Your task to perform on an android device: turn on javascript in the chrome app Image 0: 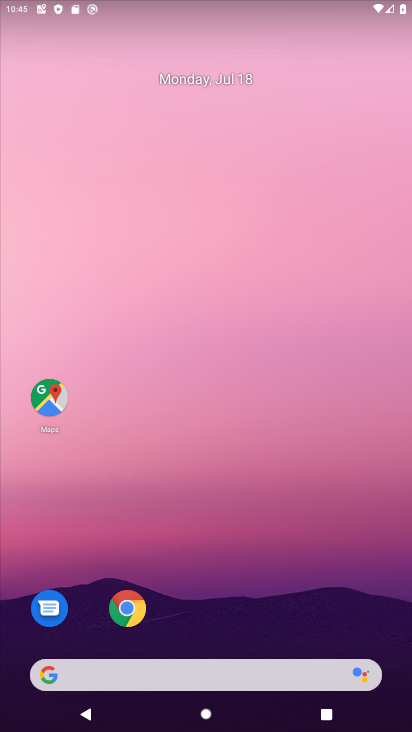
Step 0: drag from (241, 617) to (252, 211)
Your task to perform on an android device: turn on javascript in the chrome app Image 1: 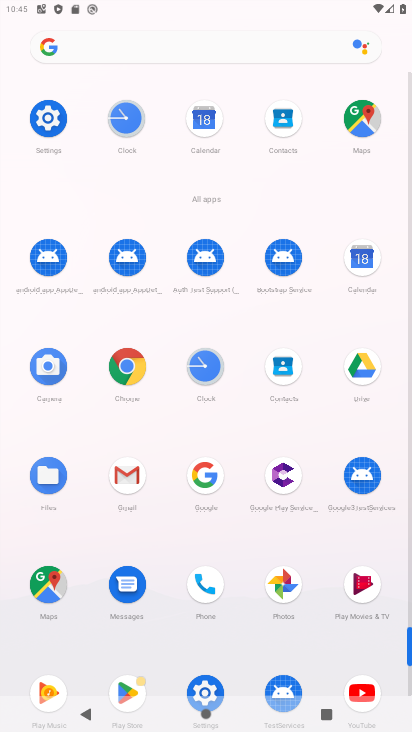
Step 1: click (126, 369)
Your task to perform on an android device: turn on javascript in the chrome app Image 2: 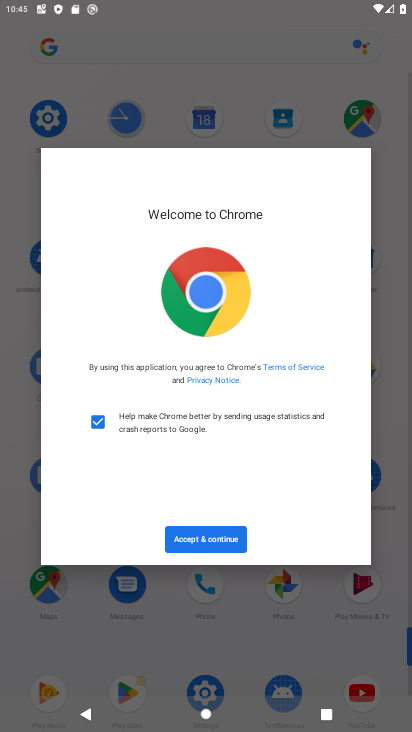
Step 2: click (205, 547)
Your task to perform on an android device: turn on javascript in the chrome app Image 3: 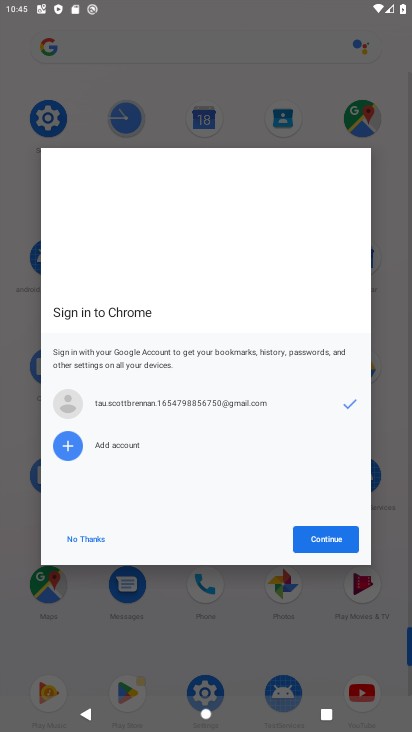
Step 3: click (328, 527)
Your task to perform on an android device: turn on javascript in the chrome app Image 4: 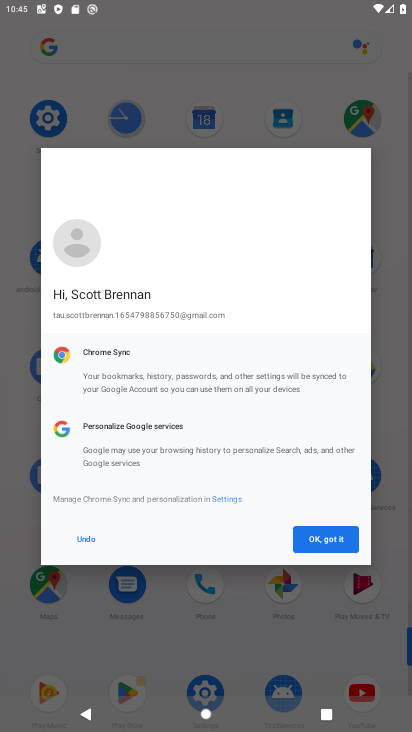
Step 4: click (325, 550)
Your task to perform on an android device: turn on javascript in the chrome app Image 5: 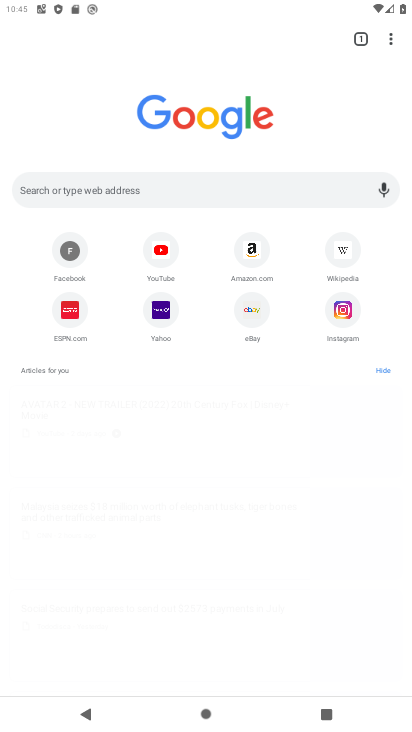
Step 5: click (389, 29)
Your task to perform on an android device: turn on javascript in the chrome app Image 6: 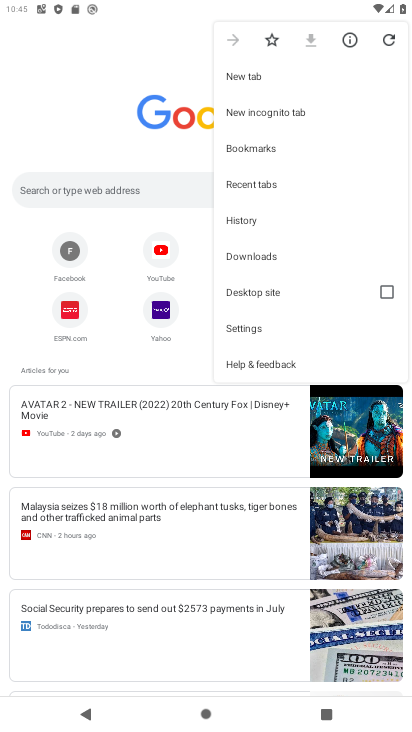
Step 6: click (256, 327)
Your task to perform on an android device: turn on javascript in the chrome app Image 7: 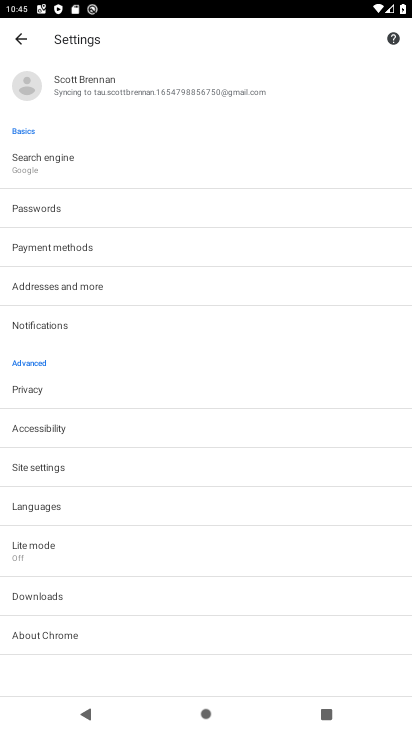
Step 7: click (49, 467)
Your task to perform on an android device: turn on javascript in the chrome app Image 8: 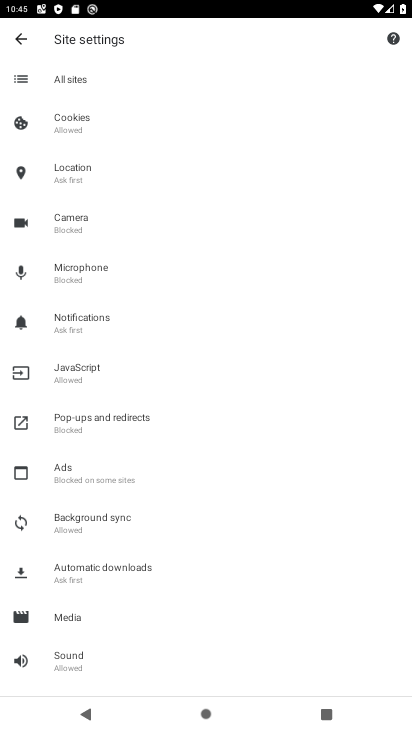
Step 8: click (81, 382)
Your task to perform on an android device: turn on javascript in the chrome app Image 9: 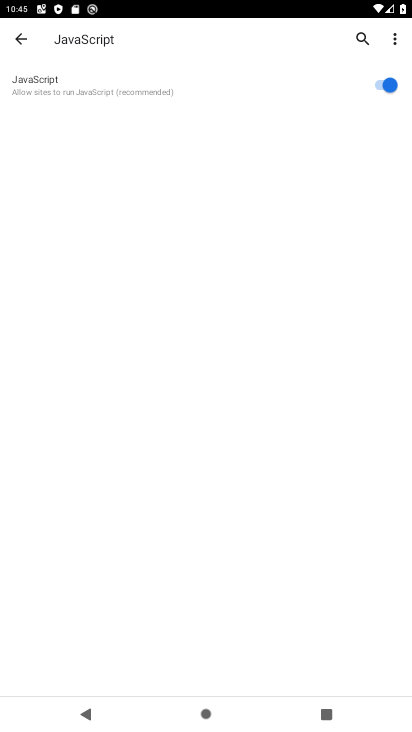
Step 9: task complete